Your task to perform on an android device: Open Yahoo.com Image 0: 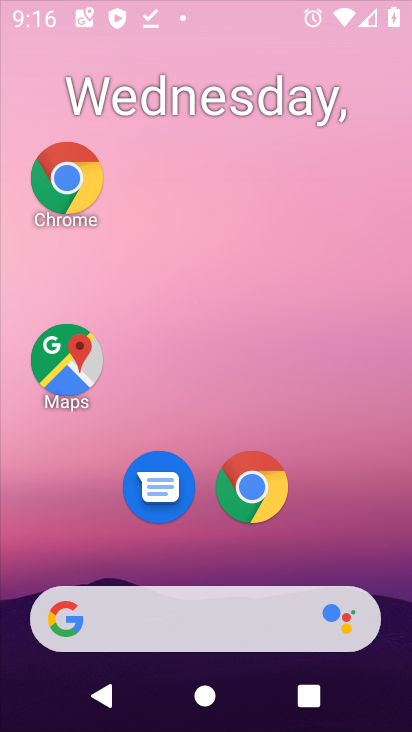
Step 0: drag from (254, 714) to (165, 92)
Your task to perform on an android device: Open Yahoo.com Image 1: 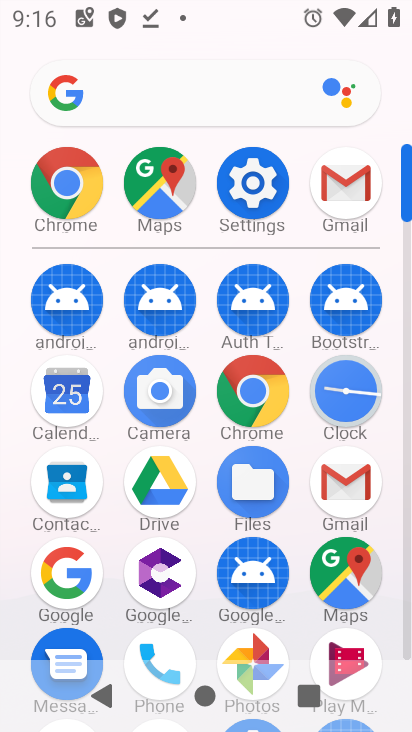
Step 1: click (68, 187)
Your task to perform on an android device: Open Yahoo.com Image 2: 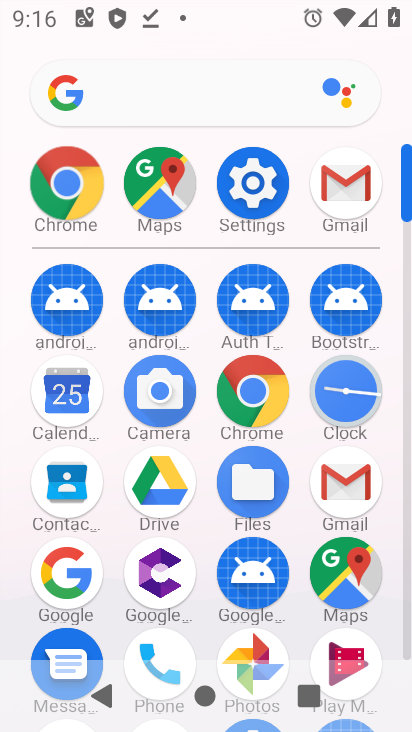
Step 2: click (68, 187)
Your task to perform on an android device: Open Yahoo.com Image 3: 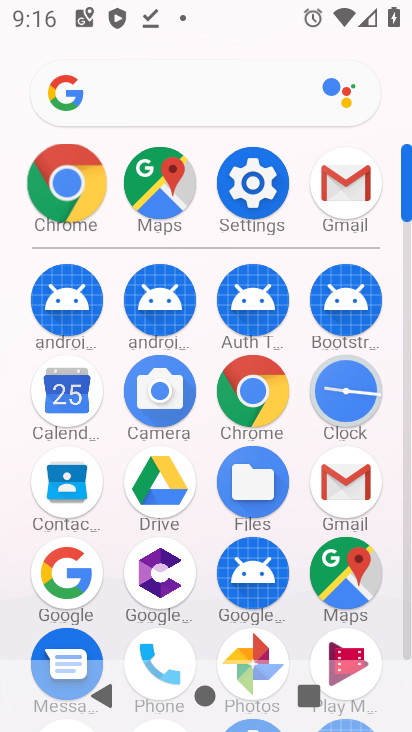
Step 3: click (68, 187)
Your task to perform on an android device: Open Yahoo.com Image 4: 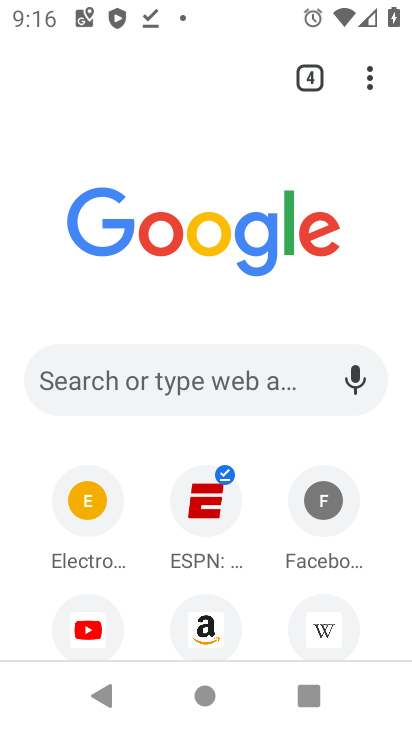
Step 4: drag from (372, 84) to (89, 497)
Your task to perform on an android device: Open Yahoo.com Image 5: 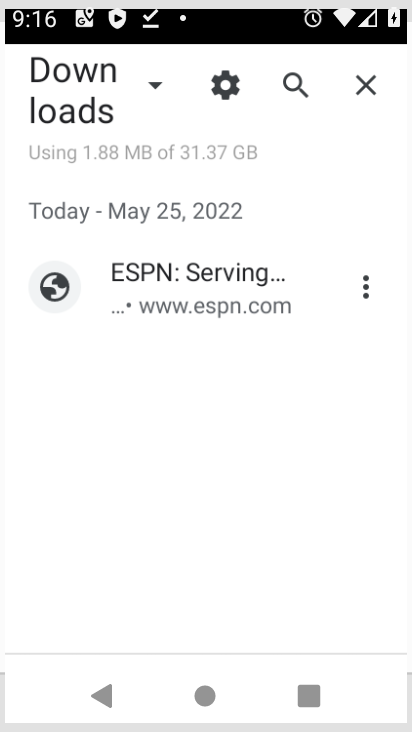
Step 5: click (60, 140)
Your task to perform on an android device: Open Yahoo.com Image 6: 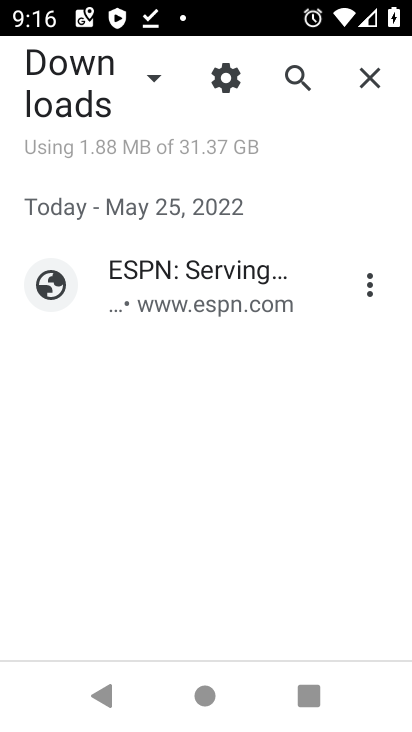
Step 6: click (358, 76)
Your task to perform on an android device: Open Yahoo.com Image 7: 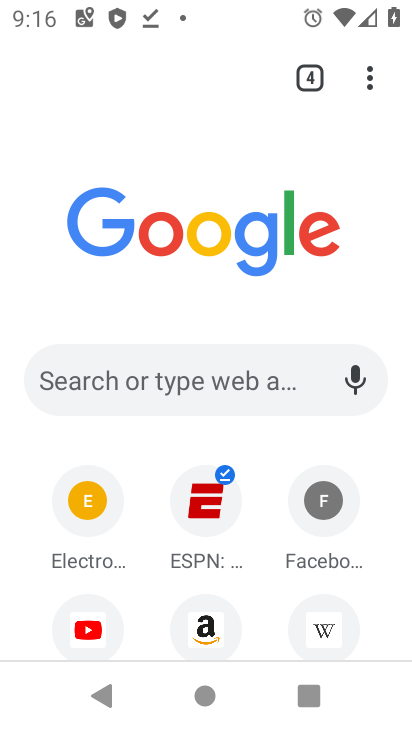
Step 7: drag from (252, 516) to (240, 259)
Your task to perform on an android device: Open Yahoo.com Image 8: 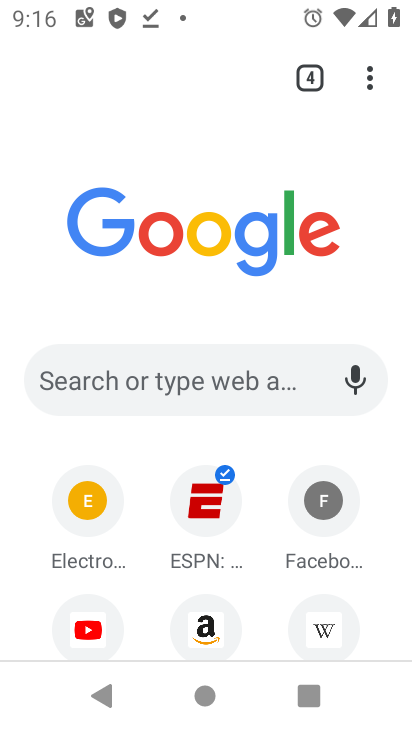
Step 8: drag from (274, 523) to (279, 219)
Your task to perform on an android device: Open Yahoo.com Image 9: 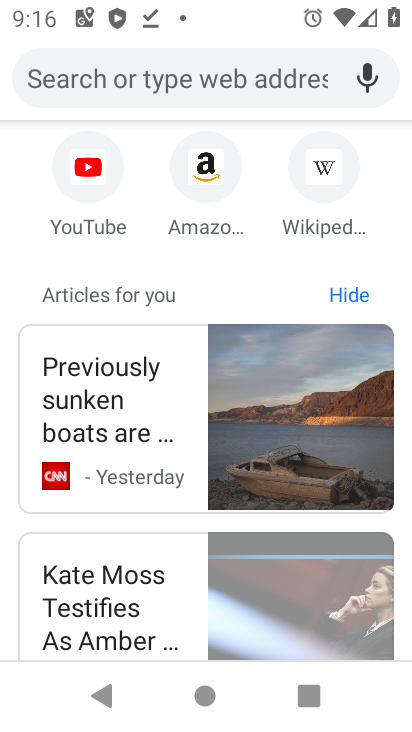
Step 9: drag from (269, 456) to (257, 161)
Your task to perform on an android device: Open Yahoo.com Image 10: 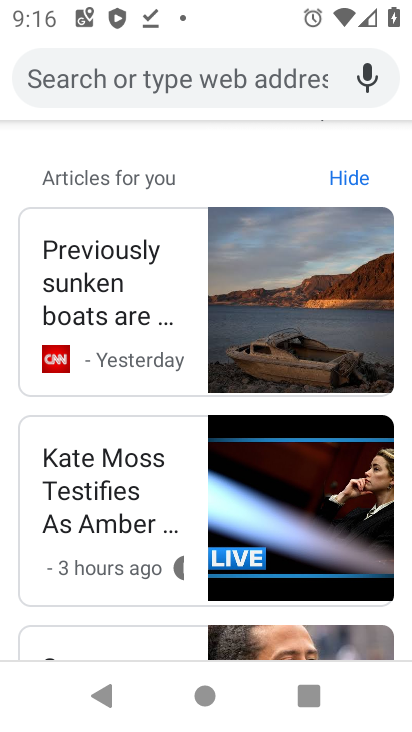
Step 10: drag from (207, 220) to (208, 535)
Your task to perform on an android device: Open Yahoo.com Image 11: 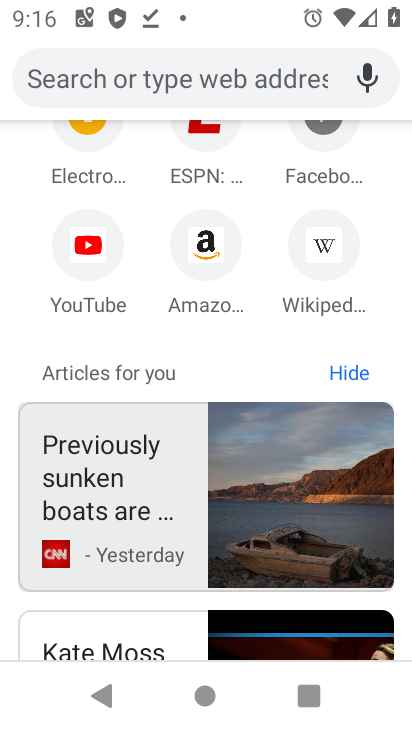
Step 11: drag from (202, 271) to (212, 480)
Your task to perform on an android device: Open Yahoo.com Image 12: 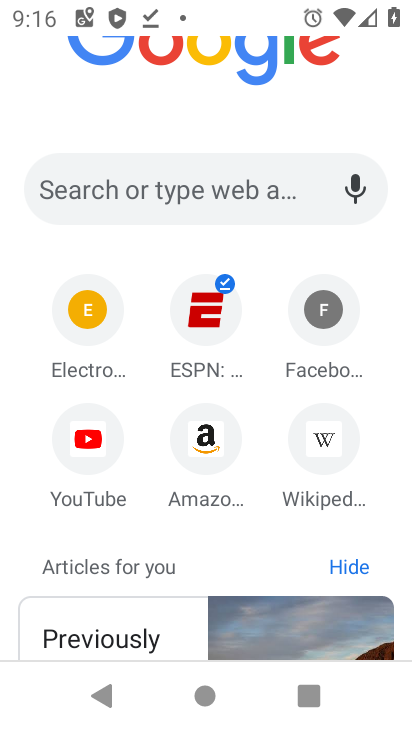
Step 12: drag from (196, 310) to (203, 487)
Your task to perform on an android device: Open Yahoo.com Image 13: 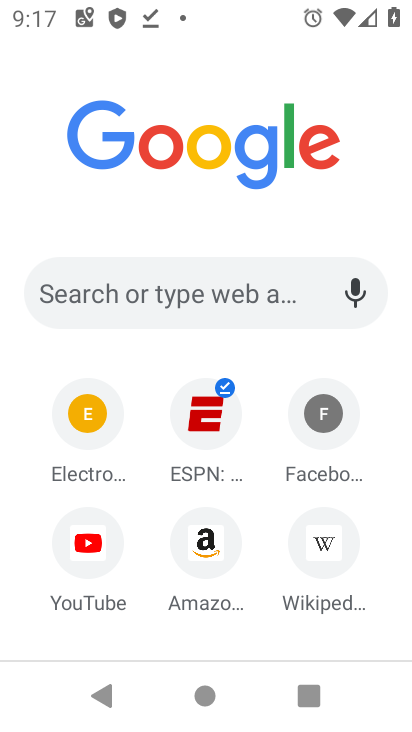
Step 13: drag from (197, 177) to (241, 536)
Your task to perform on an android device: Open Yahoo.com Image 14: 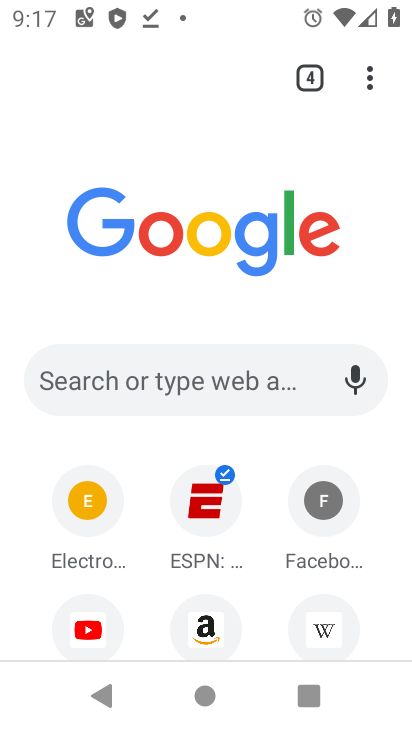
Step 14: drag from (363, 81) to (64, 170)
Your task to perform on an android device: Open Yahoo.com Image 15: 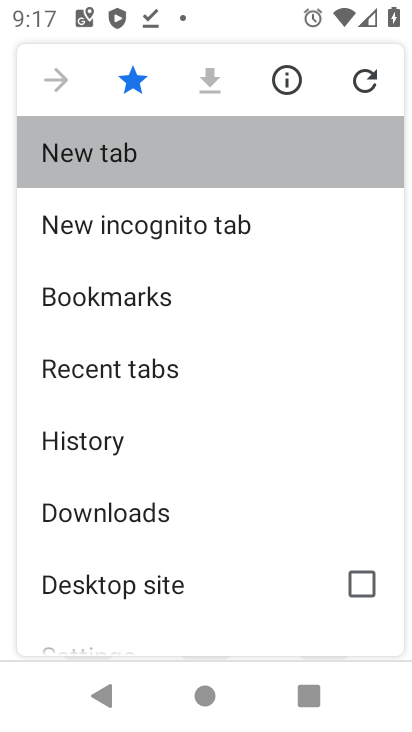
Step 15: click (66, 168)
Your task to perform on an android device: Open Yahoo.com Image 16: 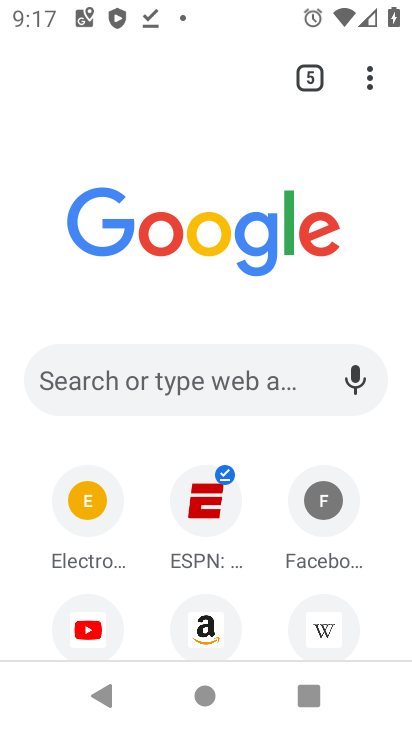
Step 16: click (64, 371)
Your task to perform on an android device: Open Yahoo.com Image 17: 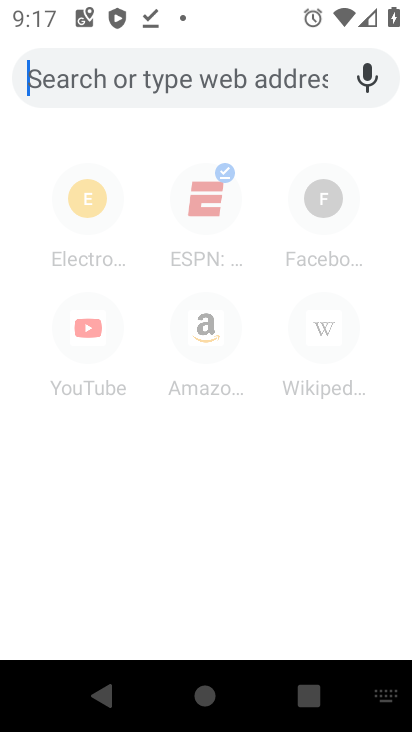
Step 17: type "yahoo.com"
Your task to perform on an android device: Open Yahoo.com Image 18: 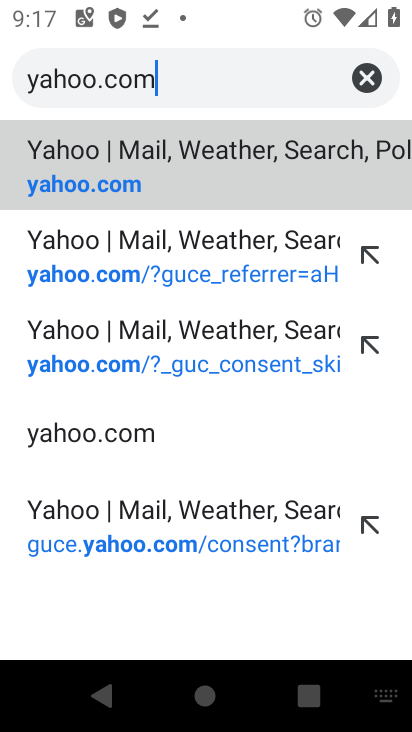
Step 18: click (59, 176)
Your task to perform on an android device: Open Yahoo.com Image 19: 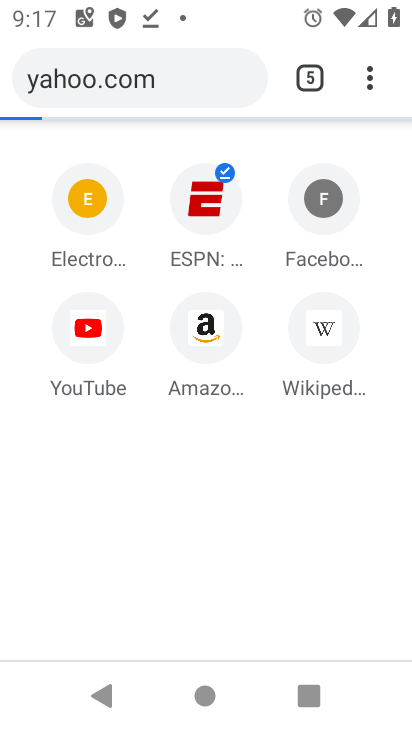
Step 19: task complete